Your task to perform on an android device: Open Yahoo.com Image 0: 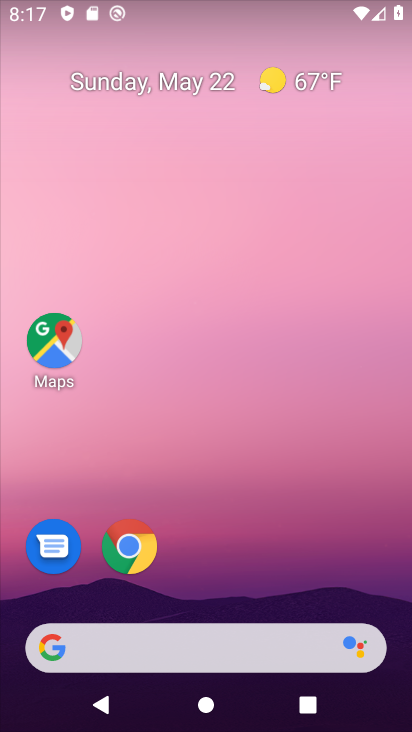
Step 0: click (135, 554)
Your task to perform on an android device: Open Yahoo.com Image 1: 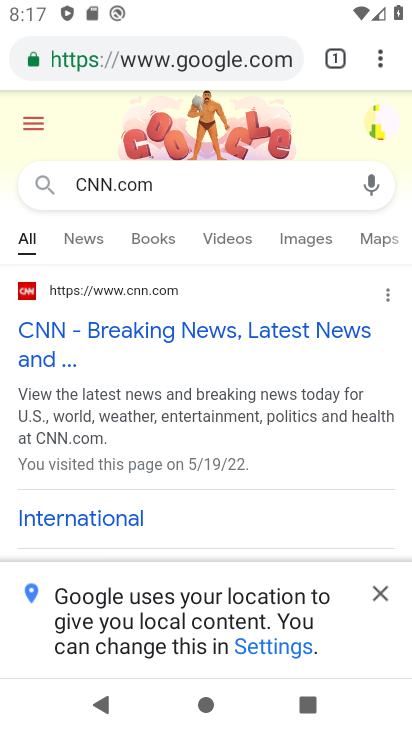
Step 1: click (204, 61)
Your task to perform on an android device: Open Yahoo.com Image 2: 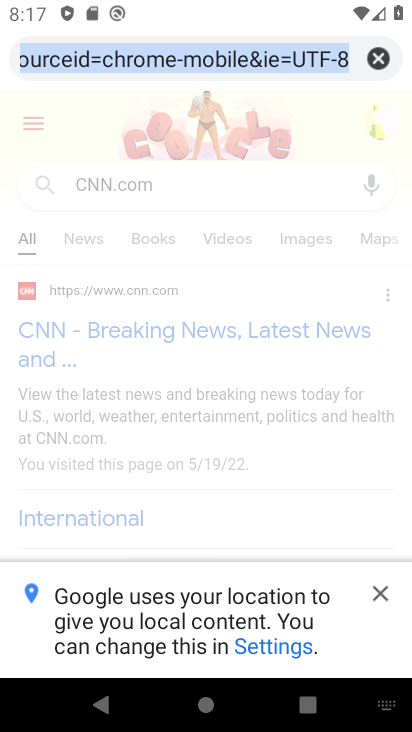
Step 2: type "yahoo.com"
Your task to perform on an android device: Open Yahoo.com Image 3: 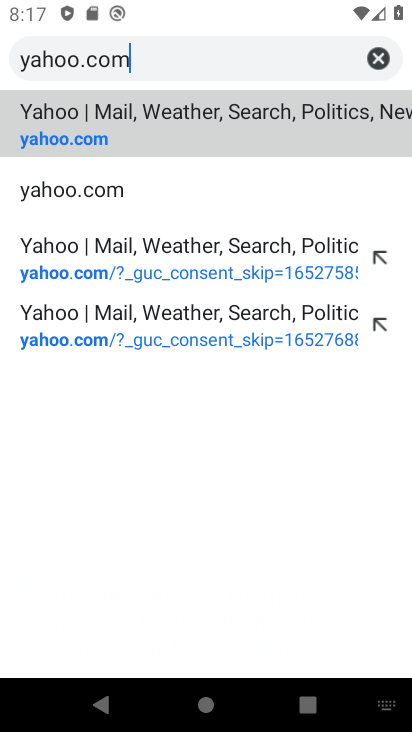
Step 3: click (125, 127)
Your task to perform on an android device: Open Yahoo.com Image 4: 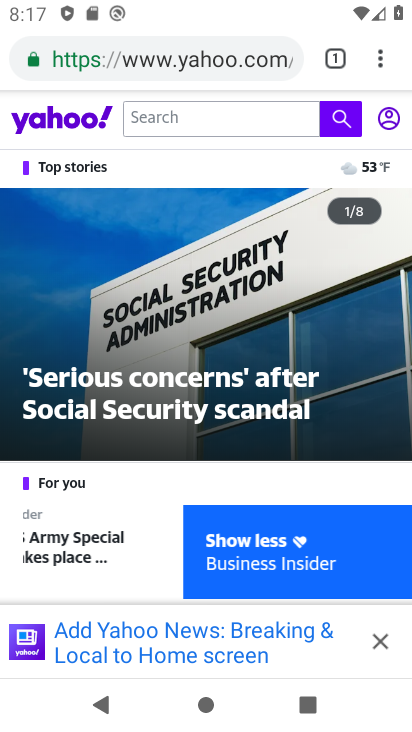
Step 4: task complete